Your task to perform on an android device: When is my next meeting? Image 0: 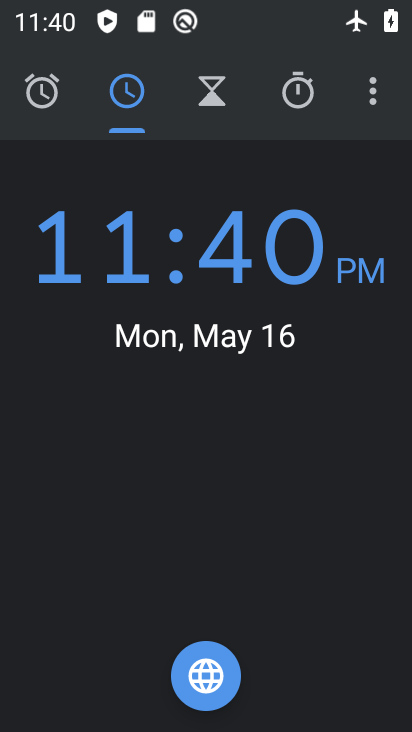
Step 0: press home button
Your task to perform on an android device: When is my next meeting? Image 1: 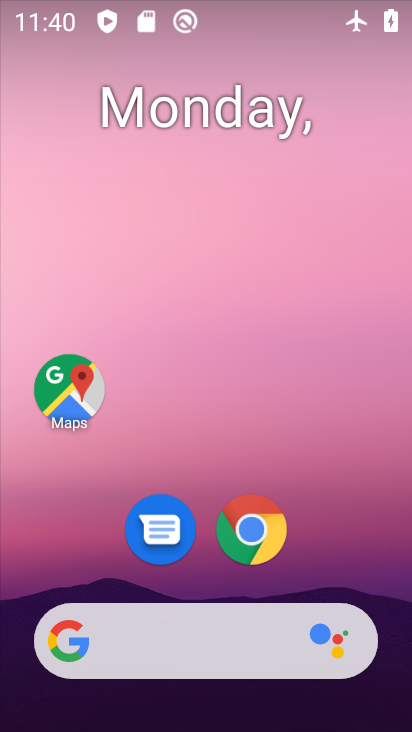
Step 1: drag from (218, 722) to (219, 235)
Your task to perform on an android device: When is my next meeting? Image 2: 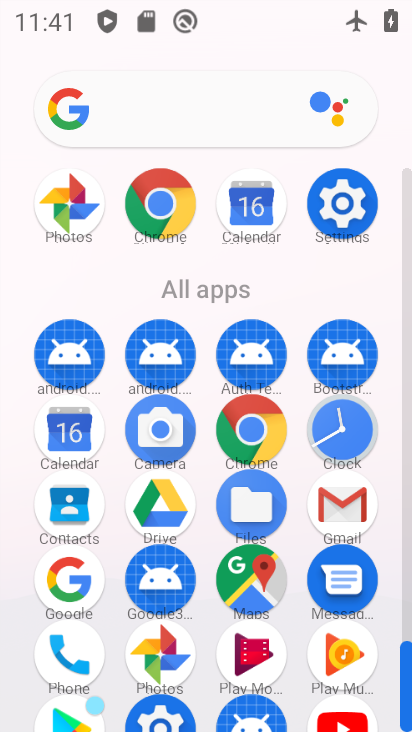
Step 2: click (72, 435)
Your task to perform on an android device: When is my next meeting? Image 3: 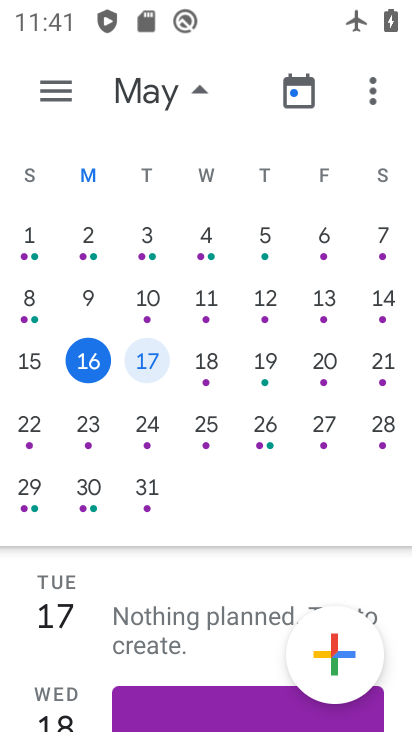
Step 3: click (149, 364)
Your task to perform on an android device: When is my next meeting? Image 4: 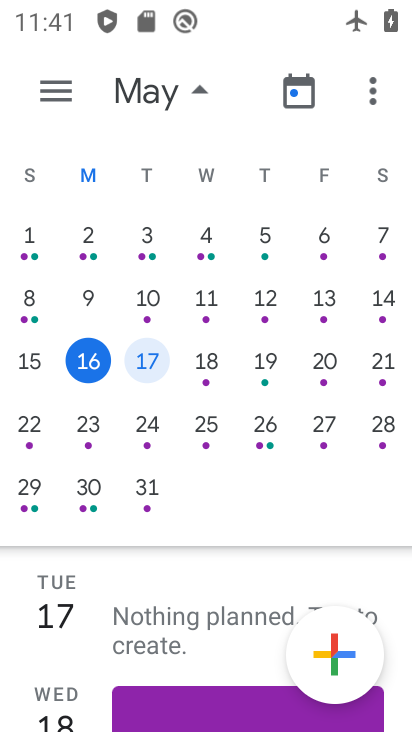
Step 4: task complete